Your task to perform on an android device: change notifications settings Image 0: 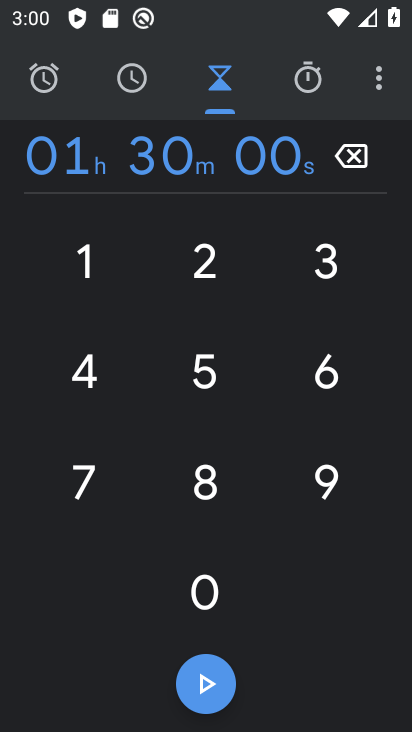
Step 0: press home button
Your task to perform on an android device: change notifications settings Image 1: 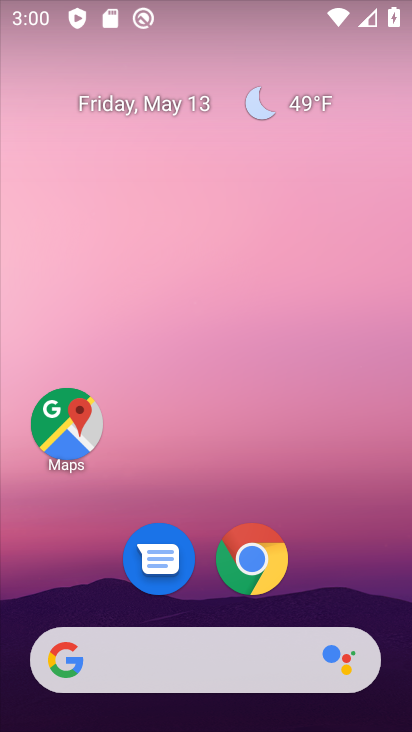
Step 1: drag from (385, 591) to (279, 126)
Your task to perform on an android device: change notifications settings Image 2: 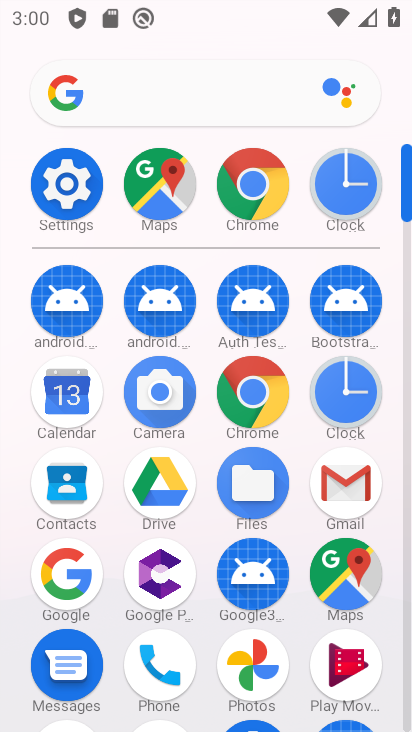
Step 2: click (409, 674)
Your task to perform on an android device: change notifications settings Image 3: 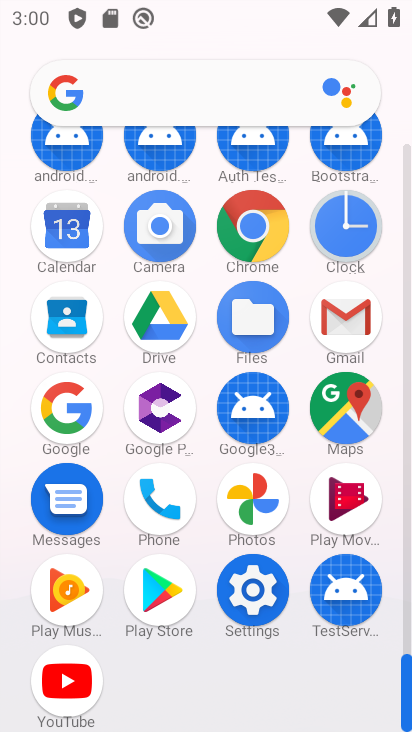
Step 3: click (253, 585)
Your task to perform on an android device: change notifications settings Image 4: 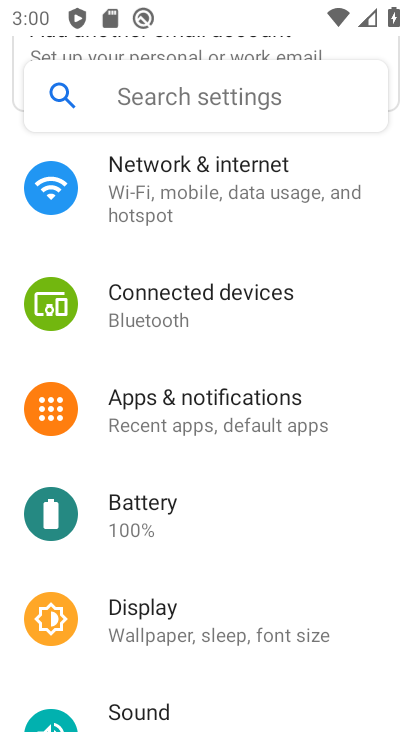
Step 4: click (210, 400)
Your task to perform on an android device: change notifications settings Image 5: 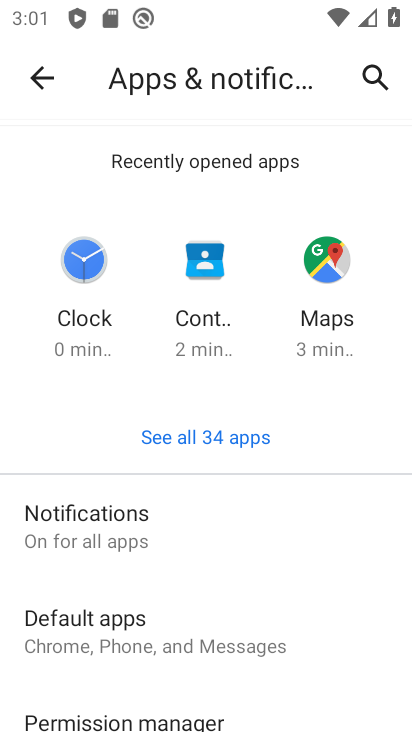
Step 5: click (68, 515)
Your task to perform on an android device: change notifications settings Image 6: 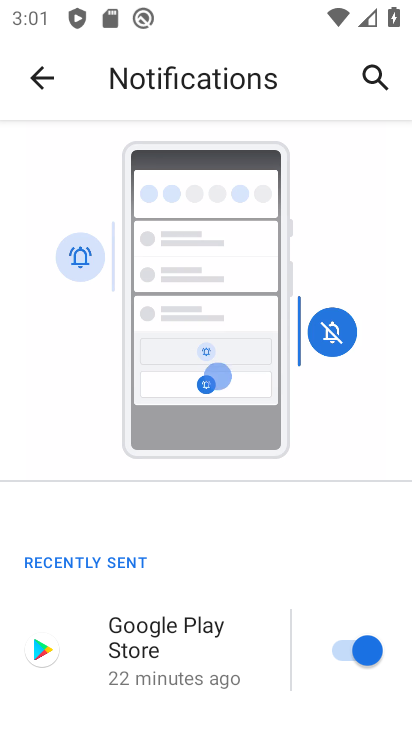
Step 6: drag from (288, 670) to (272, 203)
Your task to perform on an android device: change notifications settings Image 7: 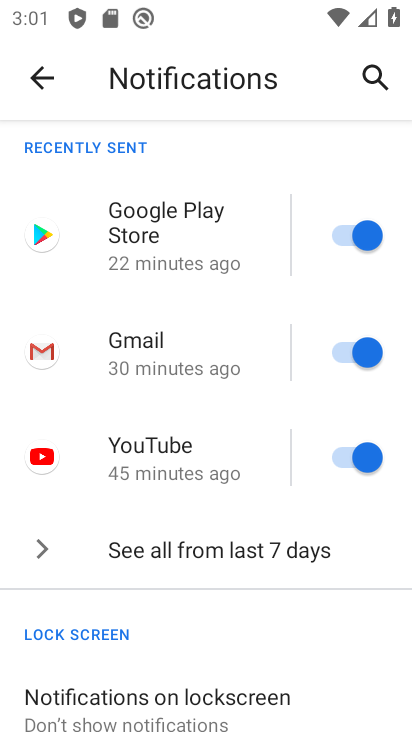
Step 7: drag from (308, 661) to (258, 152)
Your task to perform on an android device: change notifications settings Image 8: 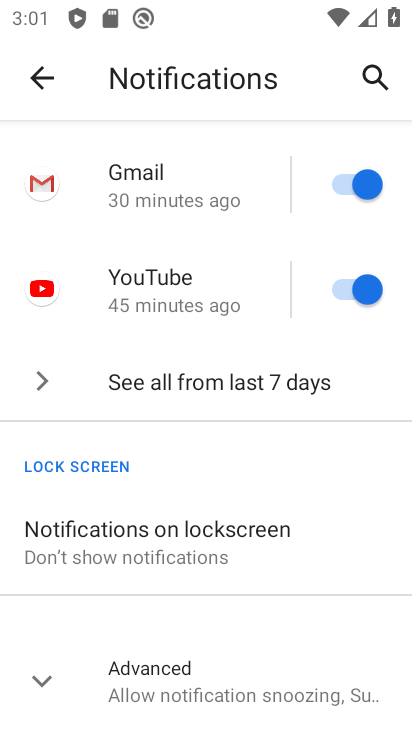
Step 8: click (36, 667)
Your task to perform on an android device: change notifications settings Image 9: 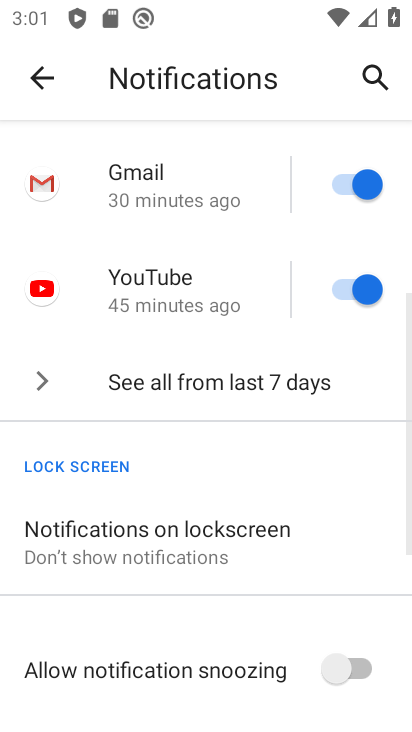
Step 9: drag from (241, 696) to (215, 230)
Your task to perform on an android device: change notifications settings Image 10: 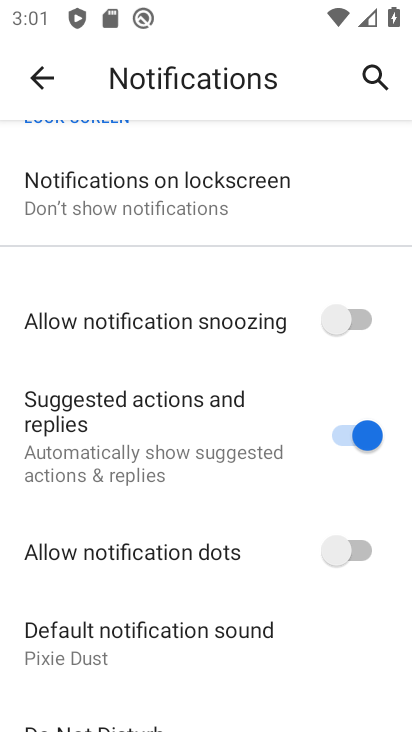
Step 10: click (363, 552)
Your task to perform on an android device: change notifications settings Image 11: 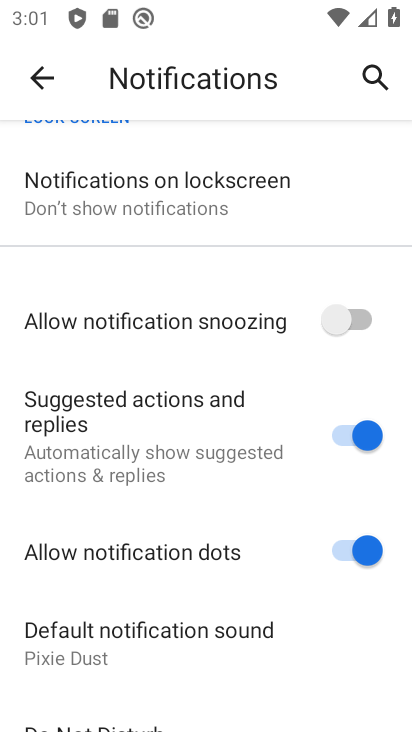
Step 11: click (363, 319)
Your task to perform on an android device: change notifications settings Image 12: 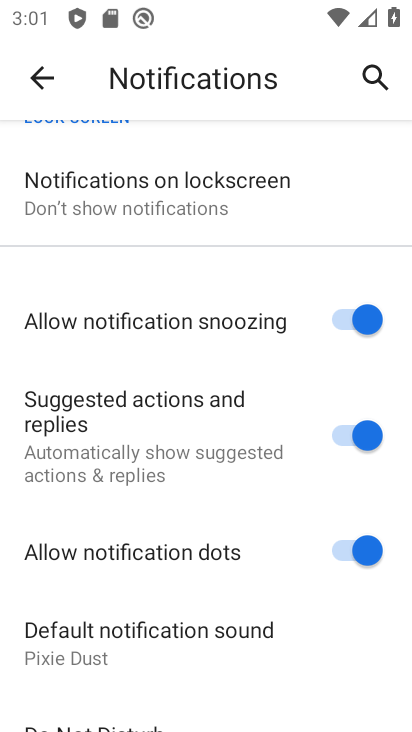
Step 12: task complete